Your task to perform on an android device: turn off improve location accuracy Image 0: 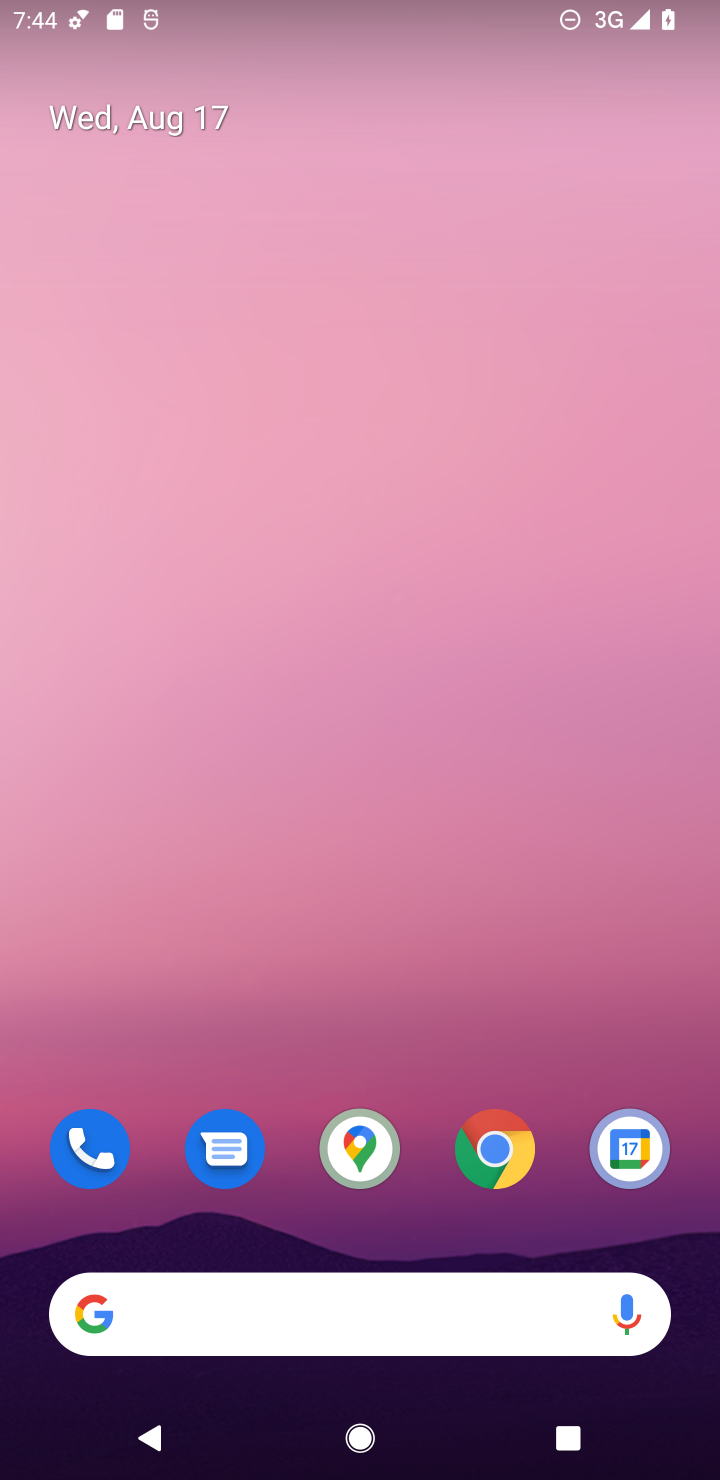
Step 0: drag from (428, 1243) to (386, 614)
Your task to perform on an android device: turn off improve location accuracy Image 1: 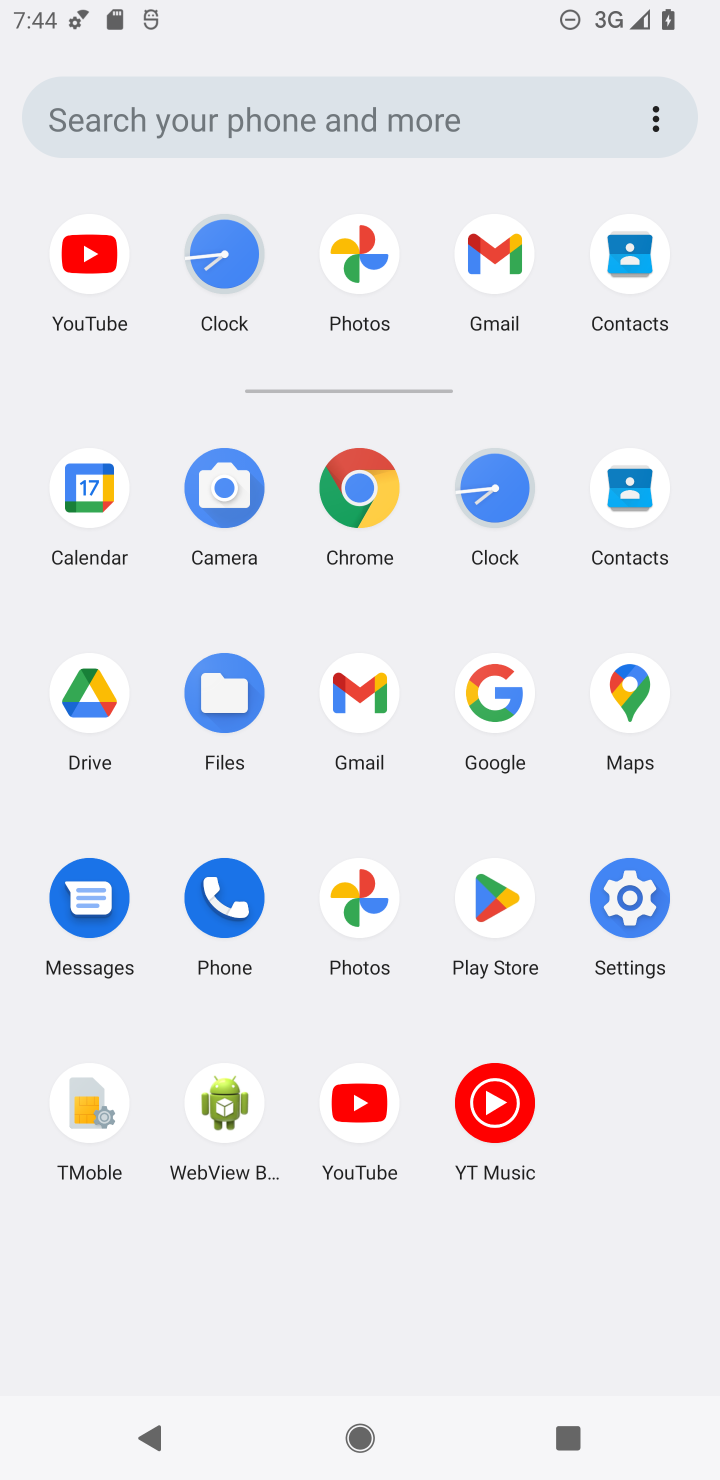
Step 1: click (631, 899)
Your task to perform on an android device: turn off improve location accuracy Image 2: 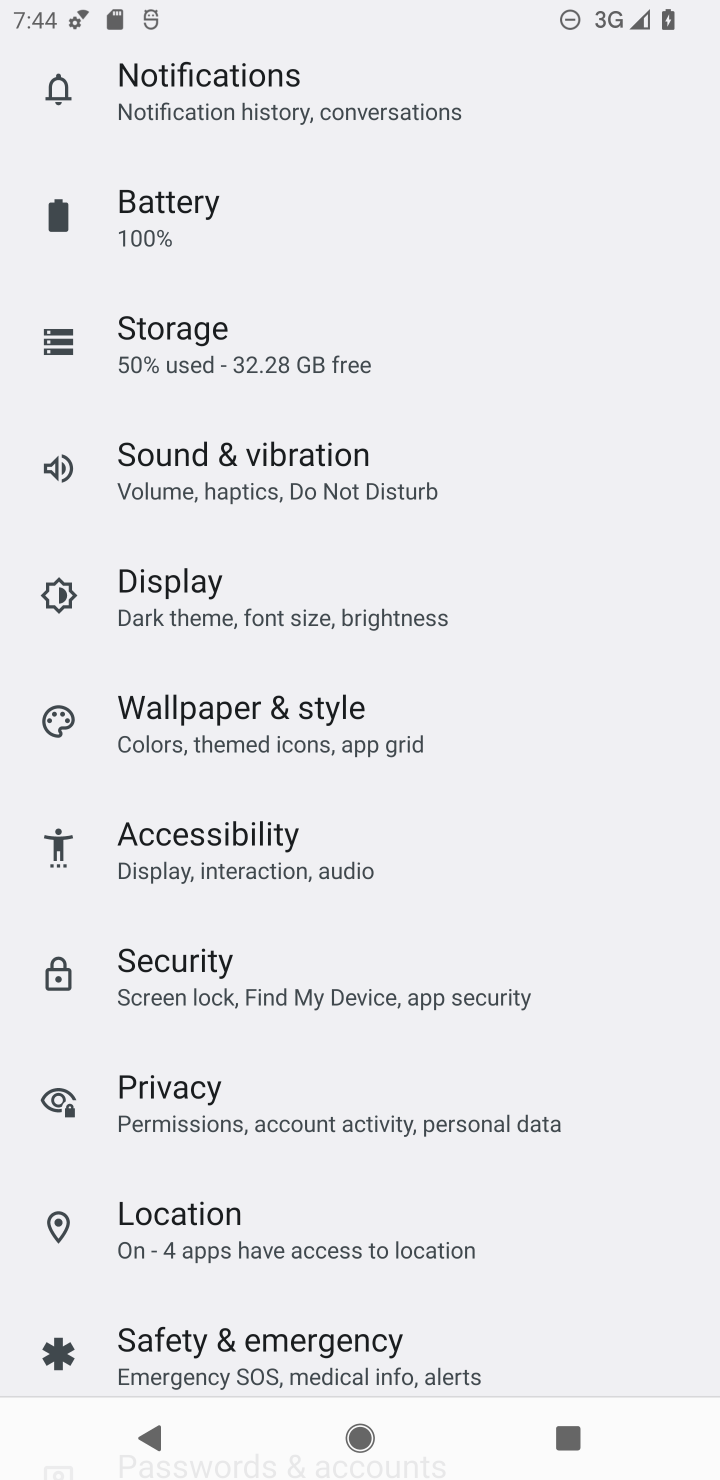
Step 2: click (185, 1210)
Your task to perform on an android device: turn off improve location accuracy Image 3: 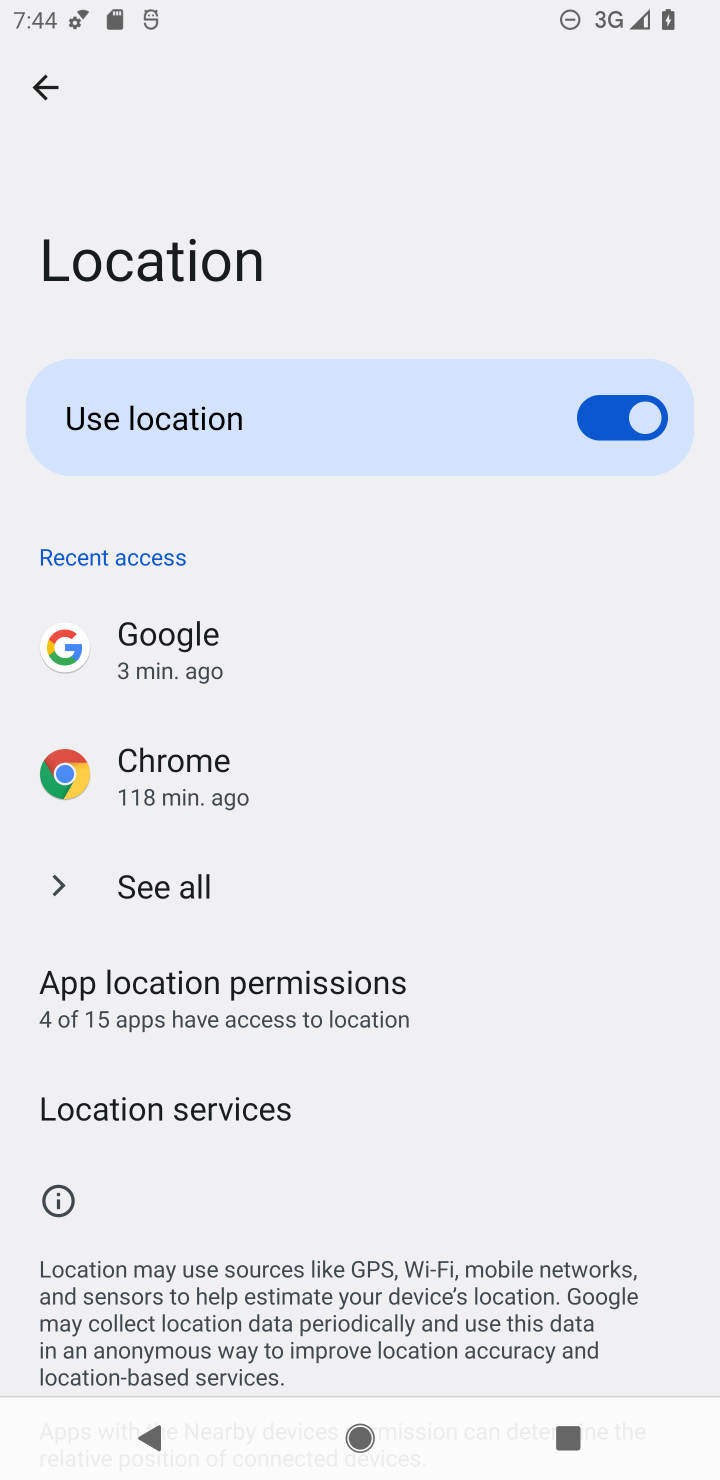
Step 3: click (171, 1107)
Your task to perform on an android device: turn off improve location accuracy Image 4: 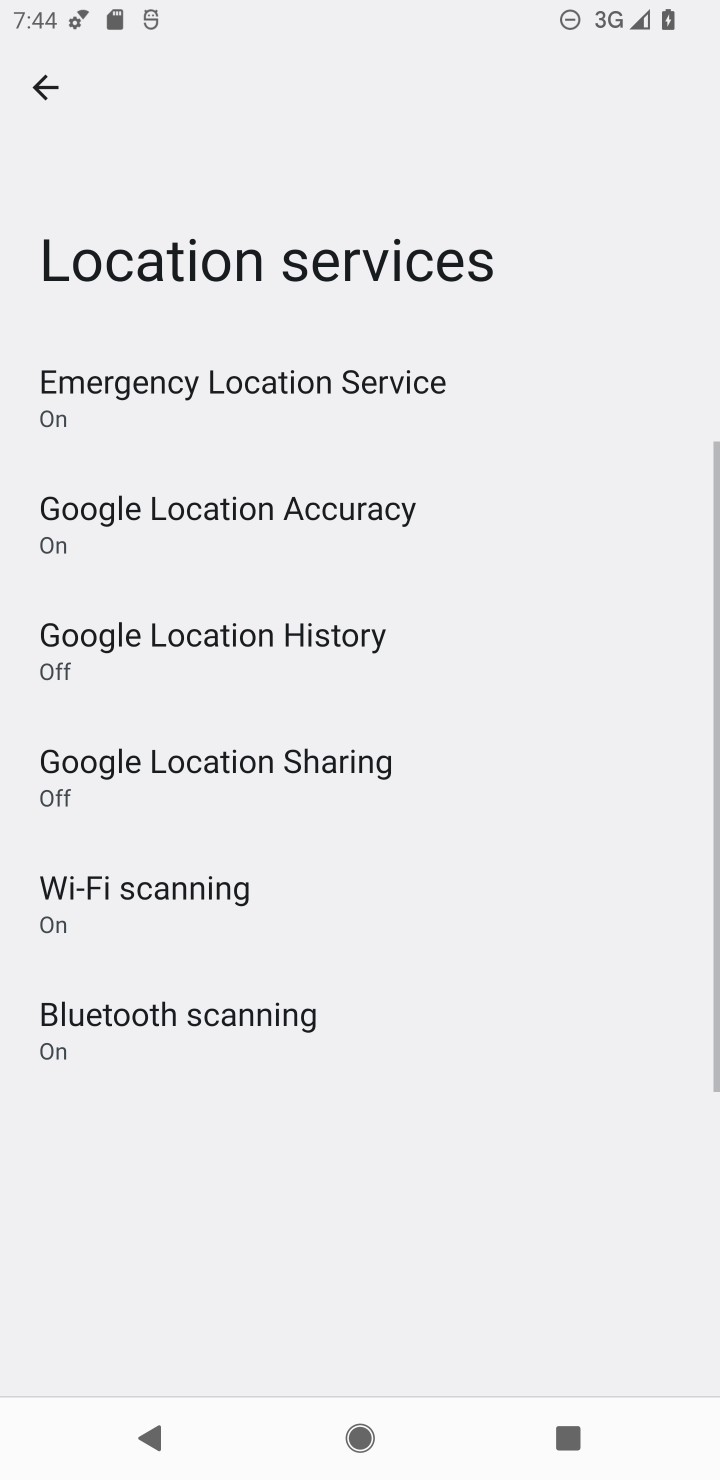
Step 4: click (191, 499)
Your task to perform on an android device: turn off improve location accuracy Image 5: 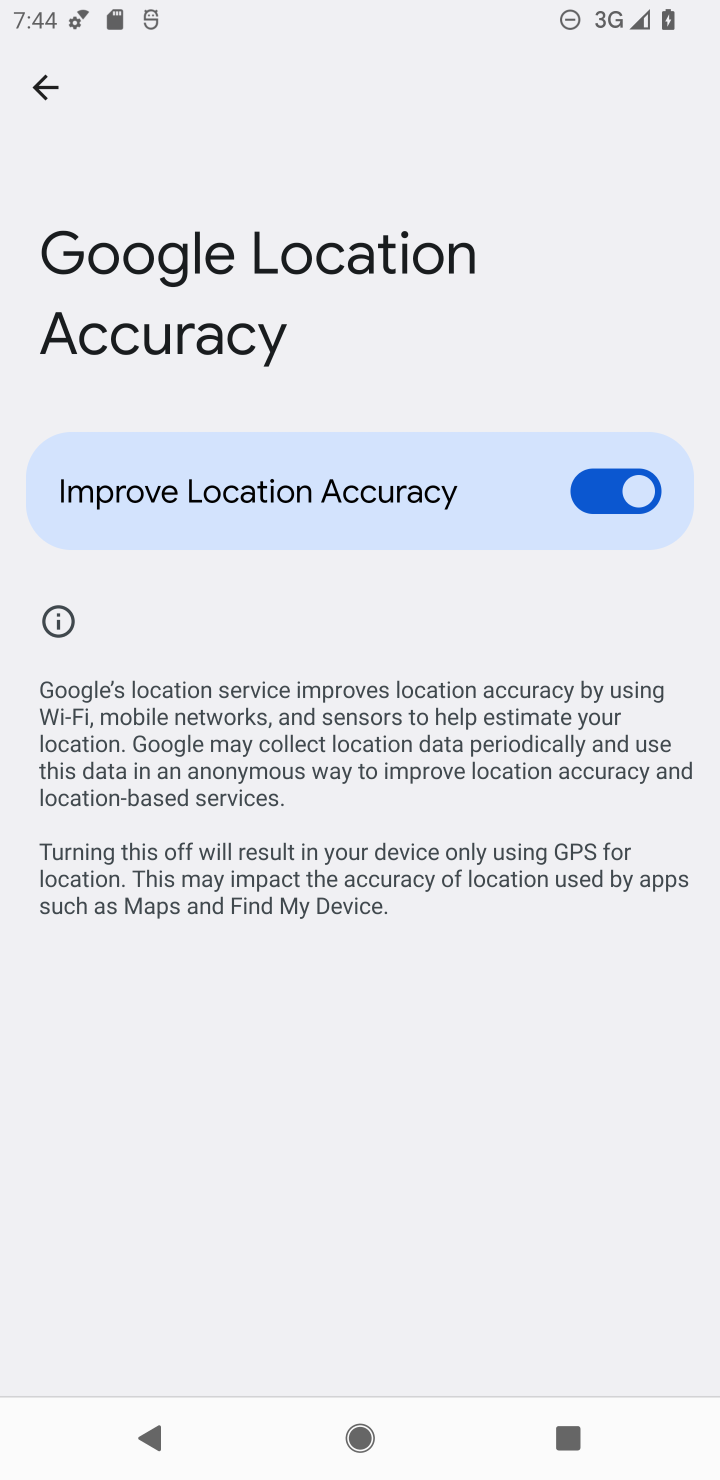
Step 5: click (608, 472)
Your task to perform on an android device: turn off improve location accuracy Image 6: 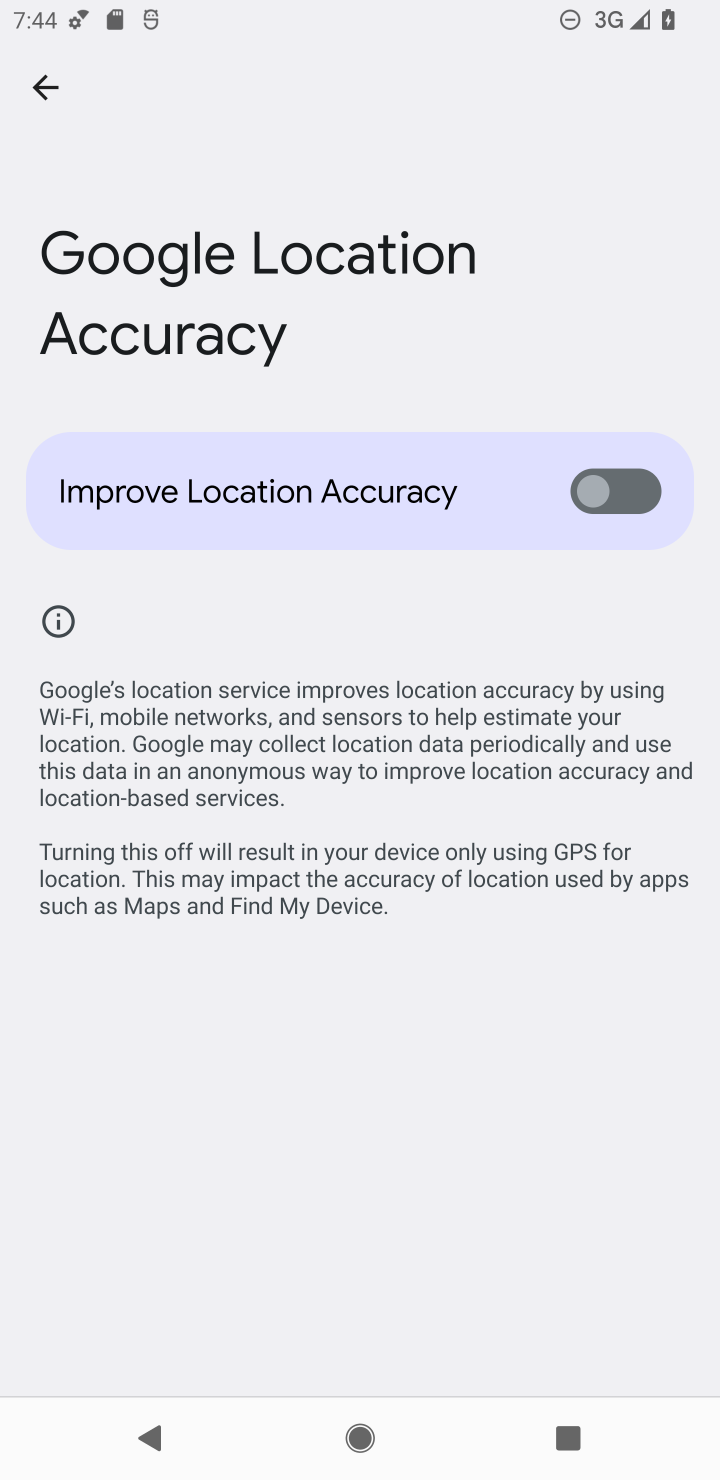
Step 6: task complete